Your task to perform on an android device: set the timer Image 0: 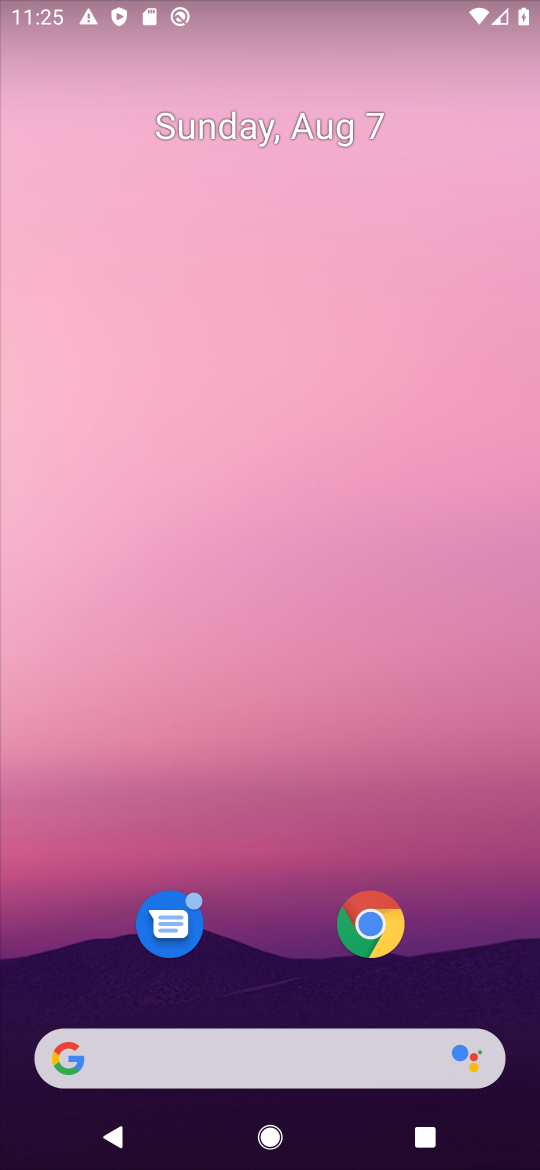
Step 0: drag from (287, 944) to (287, 377)
Your task to perform on an android device: set the timer Image 1: 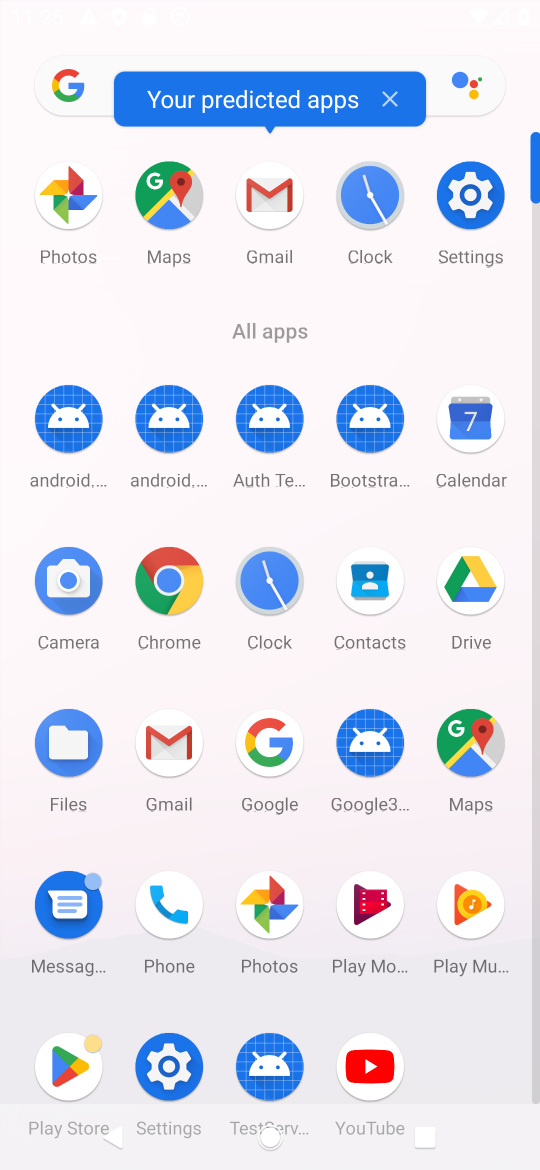
Step 1: click (359, 211)
Your task to perform on an android device: set the timer Image 2: 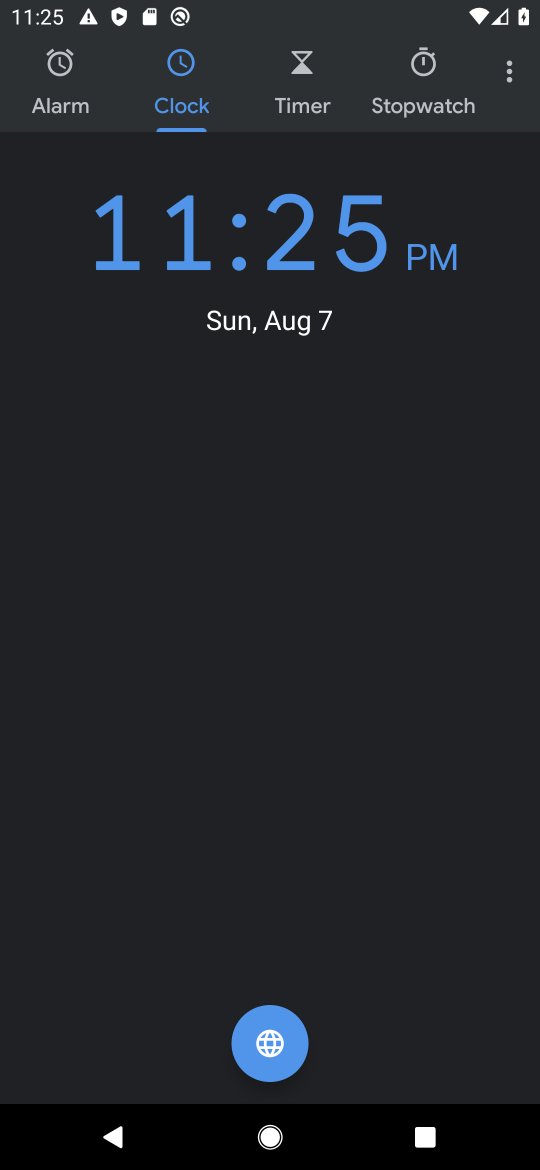
Step 2: click (319, 93)
Your task to perform on an android device: set the timer Image 3: 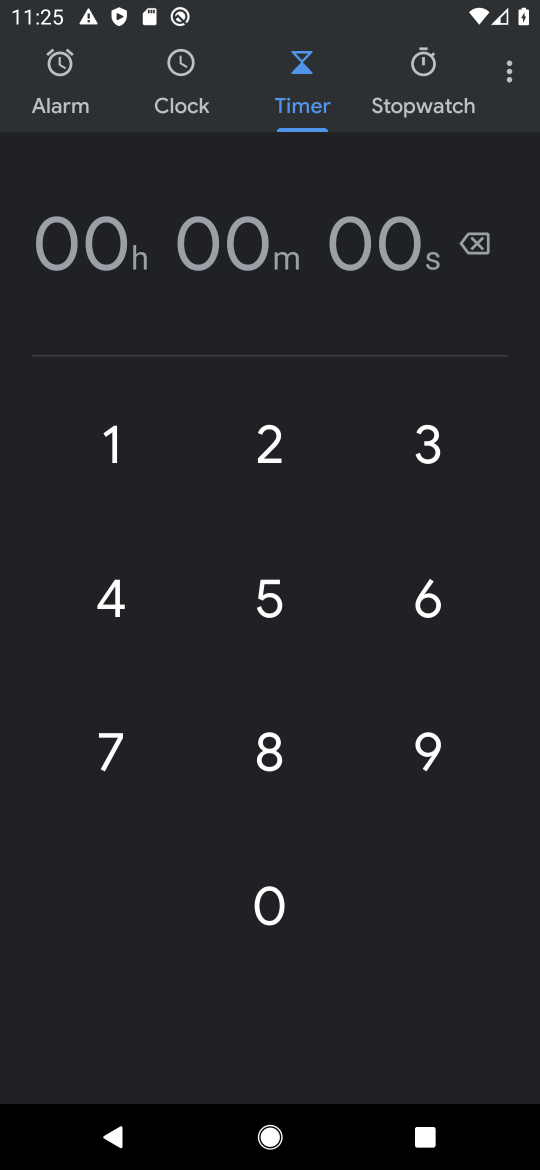
Step 3: click (114, 460)
Your task to perform on an android device: set the timer Image 4: 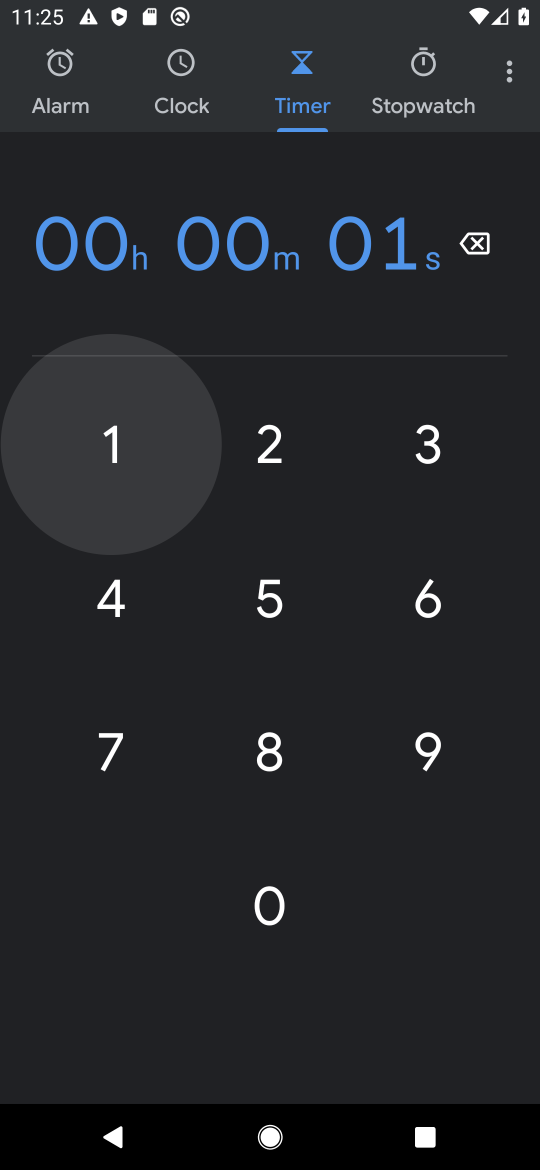
Step 4: click (253, 912)
Your task to perform on an android device: set the timer Image 5: 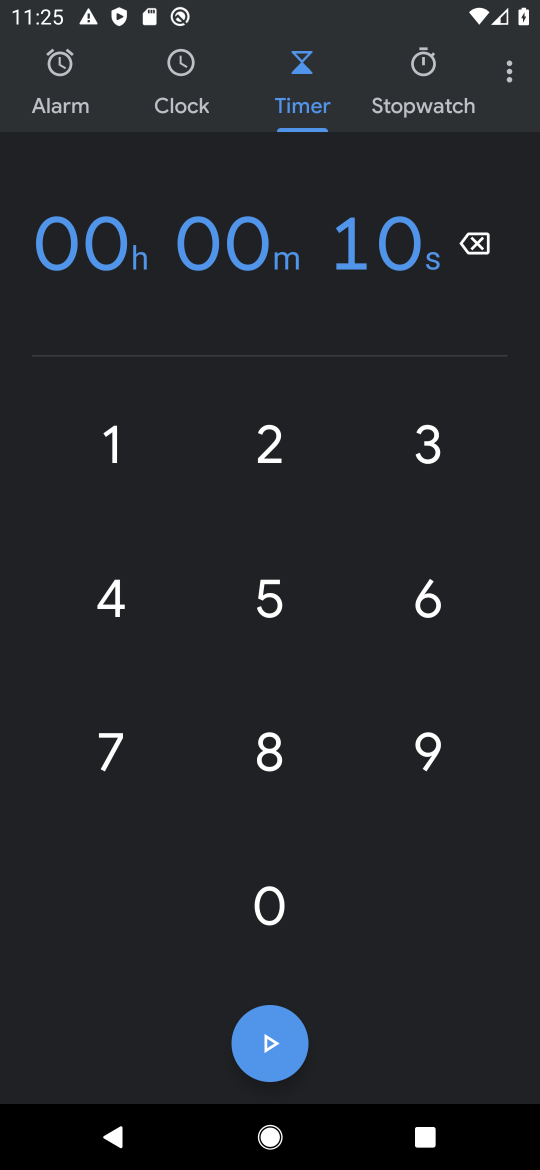
Step 5: click (260, 907)
Your task to perform on an android device: set the timer Image 6: 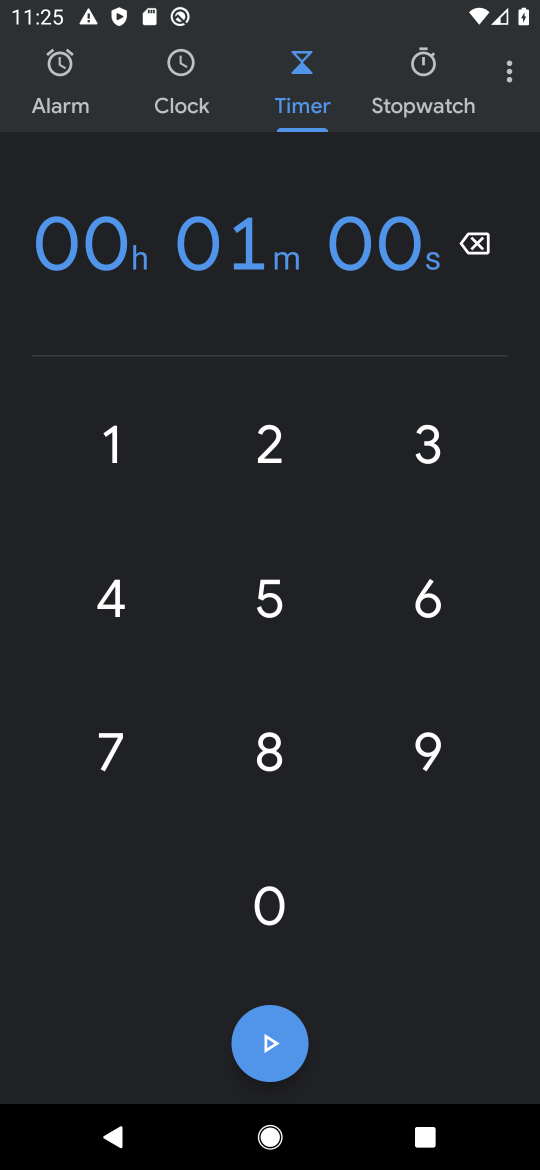
Step 6: click (260, 907)
Your task to perform on an android device: set the timer Image 7: 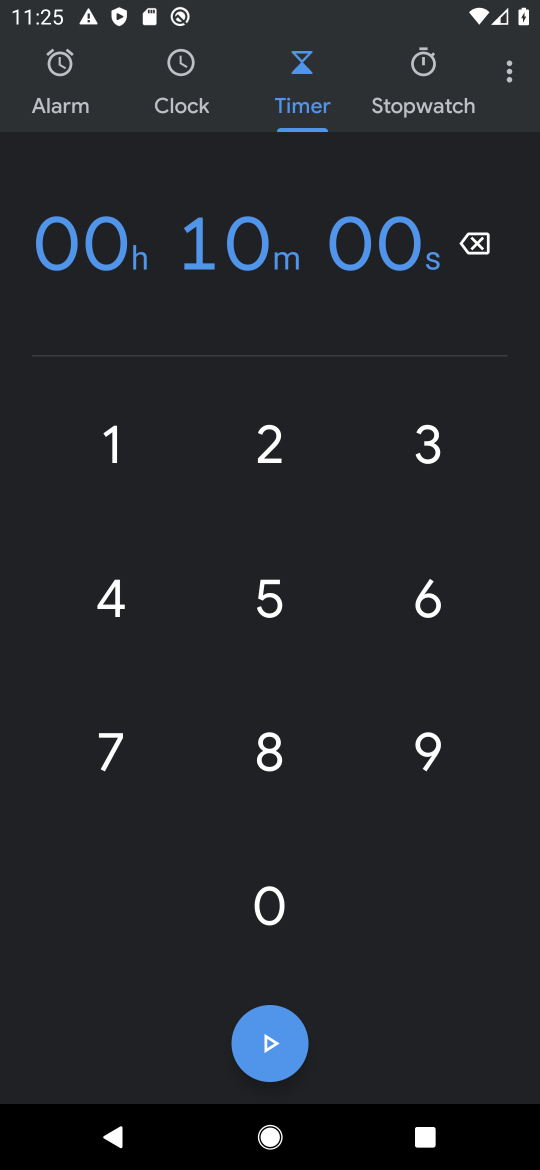
Step 7: click (260, 1035)
Your task to perform on an android device: set the timer Image 8: 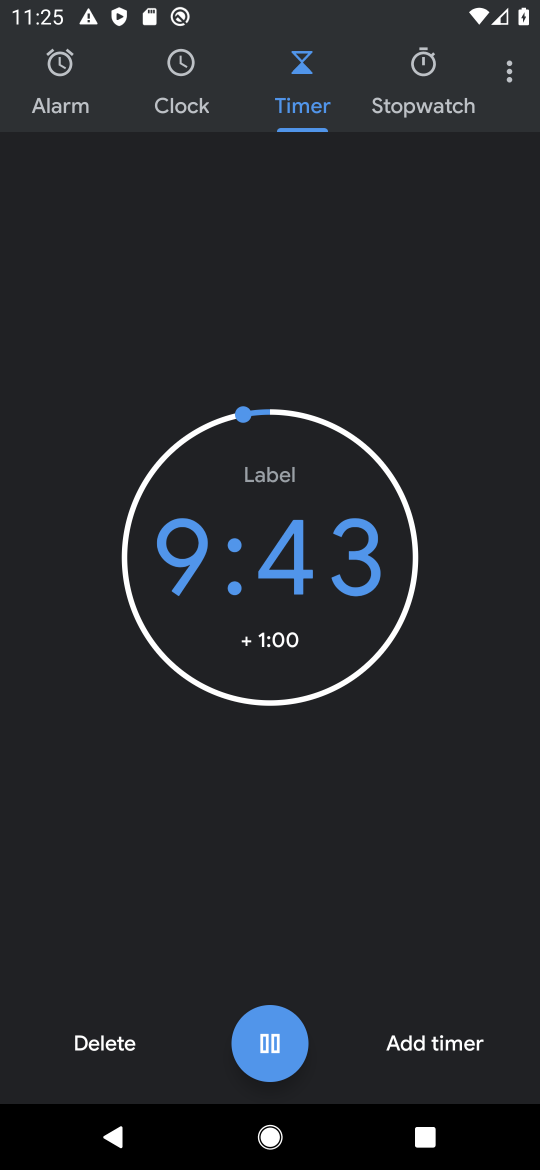
Step 8: task complete